Your task to perform on an android device: check the backup settings in the google photos Image 0: 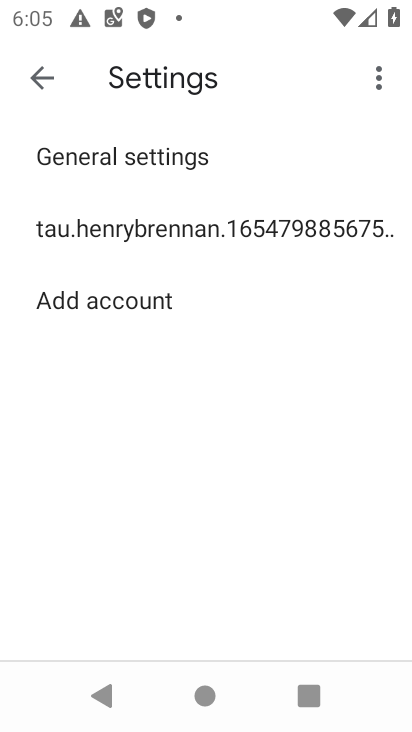
Step 0: press home button
Your task to perform on an android device: check the backup settings in the google photos Image 1: 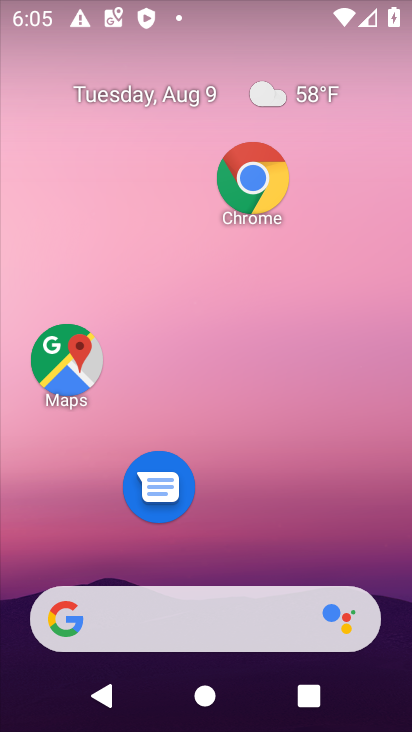
Step 1: drag from (214, 542) to (239, 143)
Your task to perform on an android device: check the backup settings in the google photos Image 2: 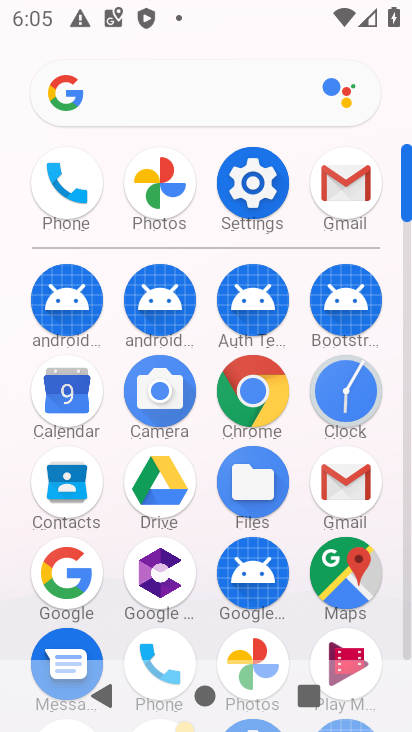
Step 2: click (158, 203)
Your task to perform on an android device: check the backup settings in the google photos Image 3: 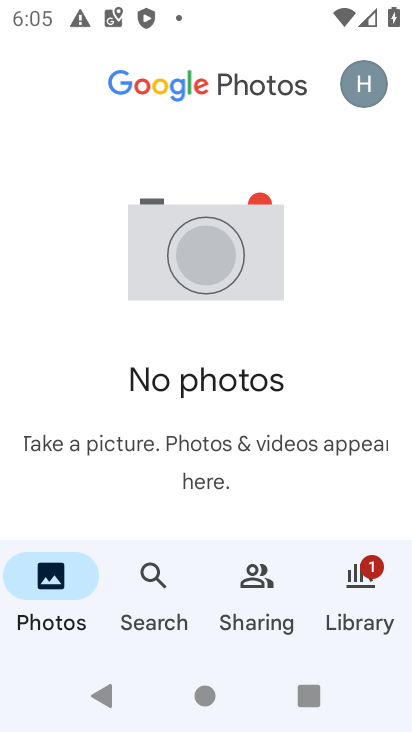
Step 3: click (359, 83)
Your task to perform on an android device: check the backup settings in the google photos Image 4: 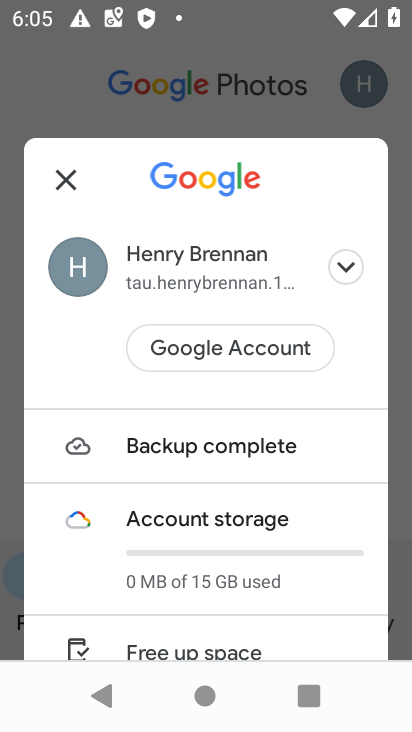
Step 4: drag from (100, 390) to (137, 169)
Your task to perform on an android device: check the backup settings in the google photos Image 5: 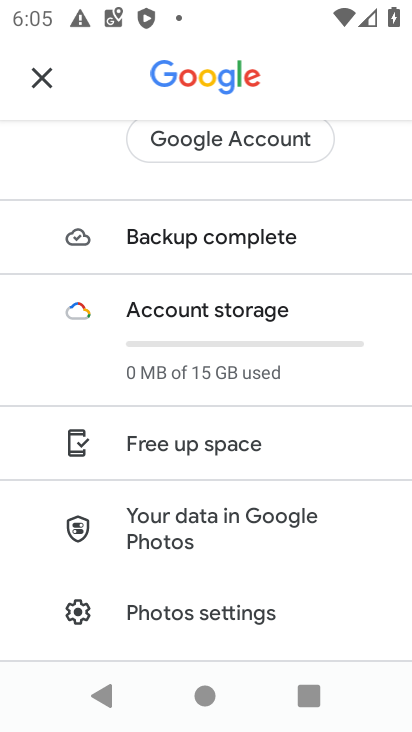
Step 5: click (176, 616)
Your task to perform on an android device: check the backup settings in the google photos Image 6: 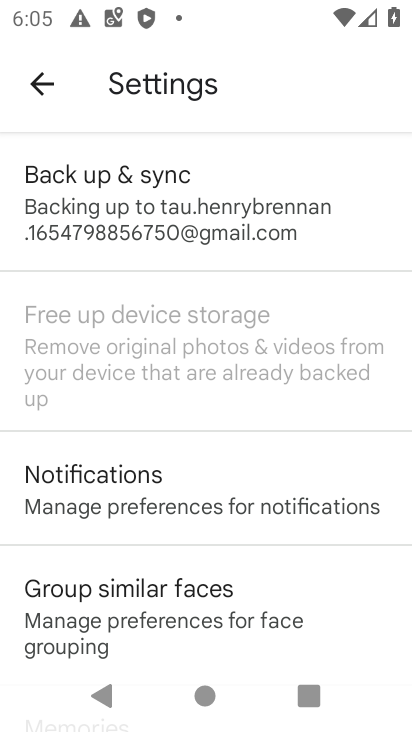
Step 6: click (160, 250)
Your task to perform on an android device: check the backup settings in the google photos Image 7: 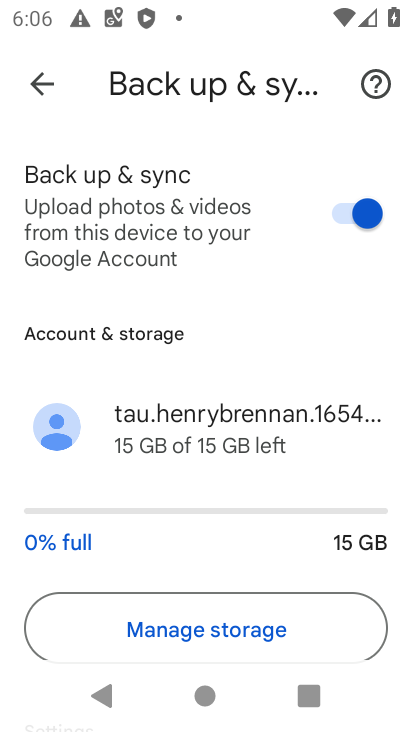
Step 7: drag from (282, 355) to (308, 163)
Your task to perform on an android device: check the backup settings in the google photos Image 8: 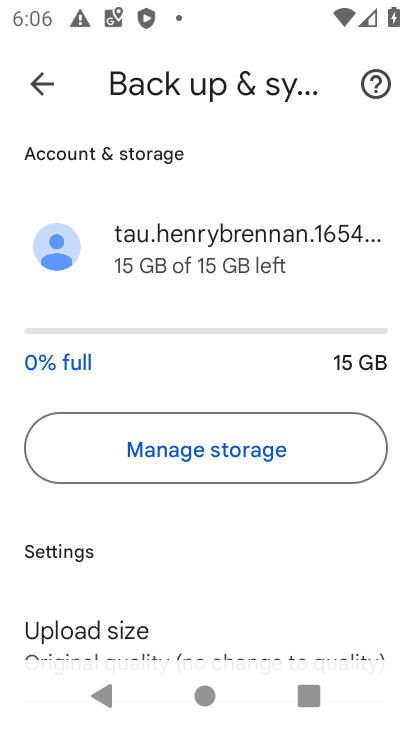
Step 8: drag from (243, 496) to (272, 232)
Your task to perform on an android device: check the backup settings in the google photos Image 9: 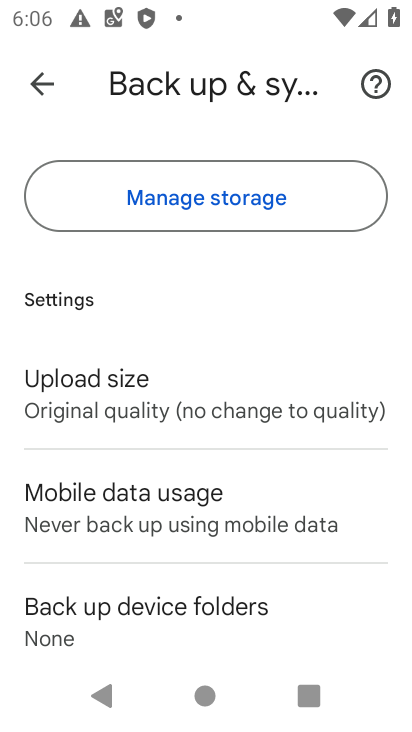
Step 9: click (178, 605)
Your task to perform on an android device: check the backup settings in the google photos Image 10: 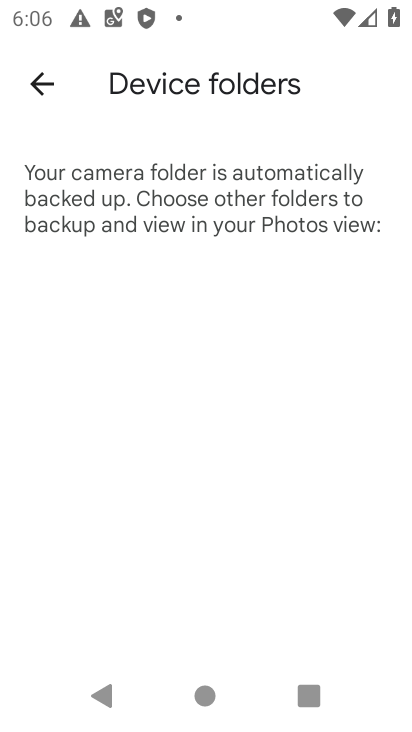
Step 10: click (41, 92)
Your task to perform on an android device: check the backup settings in the google photos Image 11: 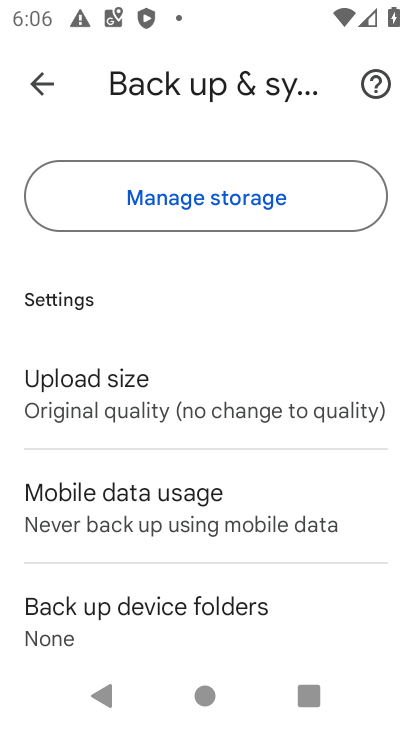
Step 11: task complete